Your task to perform on an android device: empty trash in the gmail app Image 0: 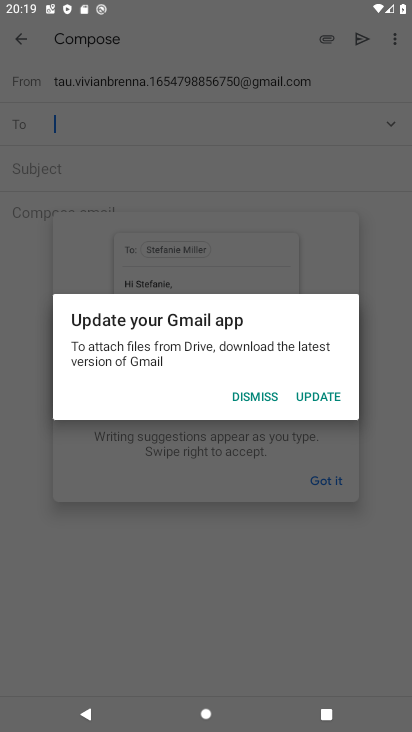
Step 0: click (315, 391)
Your task to perform on an android device: empty trash in the gmail app Image 1: 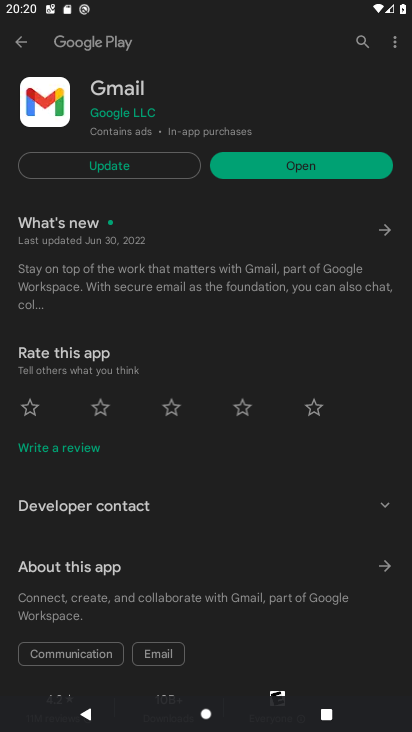
Step 1: click (117, 173)
Your task to perform on an android device: empty trash in the gmail app Image 2: 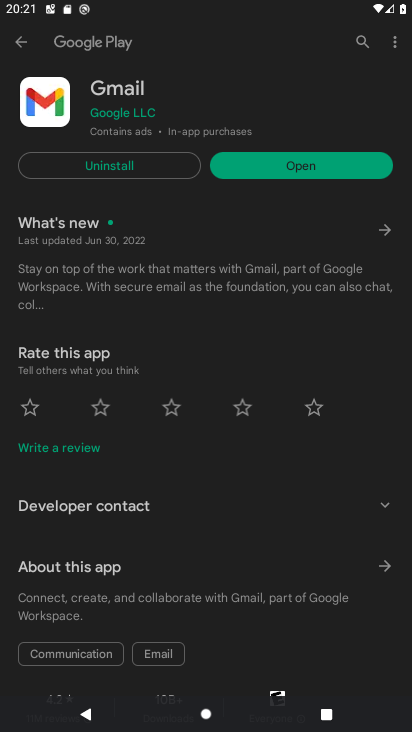
Step 2: click (253, 174)
Your task to perform on an android device: empty trash in the gmail app Image 3: 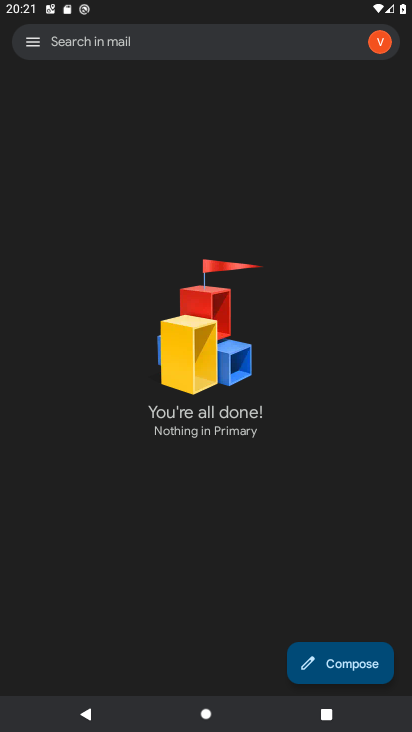
Step 3: click (33, 46)
Your task to perform on an android device: empty trash in the gmail app Image 4: 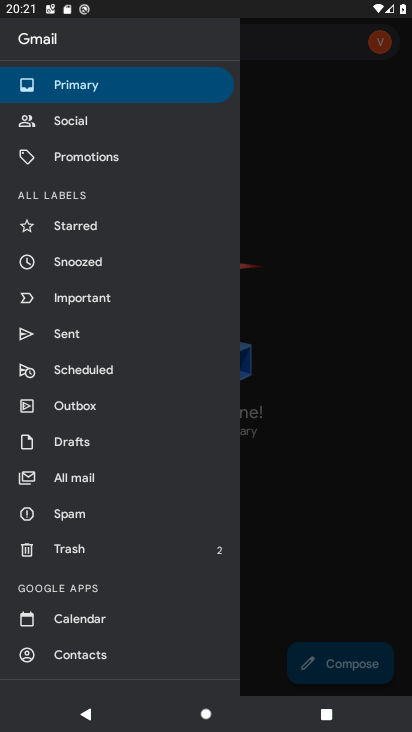
Step 4: click (73, 545)
Your task to perform on an android device: empty trash in the gmail app Image 5: 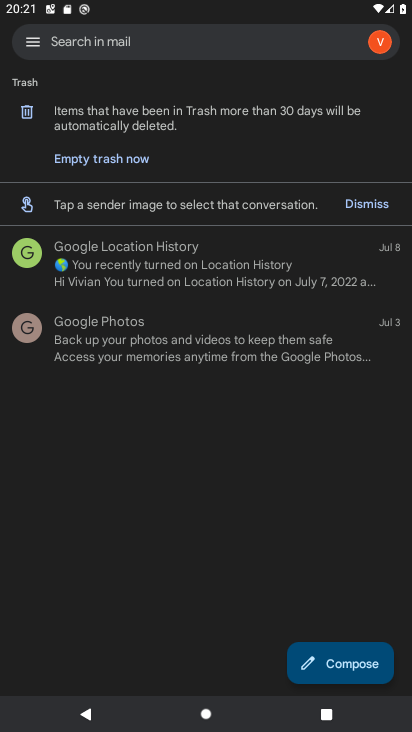
Step 5: click (20, 259)
Your task to perform on an android device: empty trash in the gmail app Image 6: 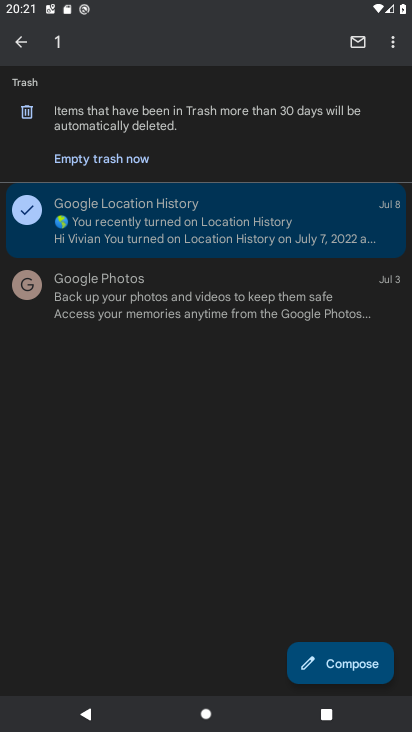
Step 6: click (20, 337)
Your task to perform on an android device: empty trash in the gmail app Image 7: 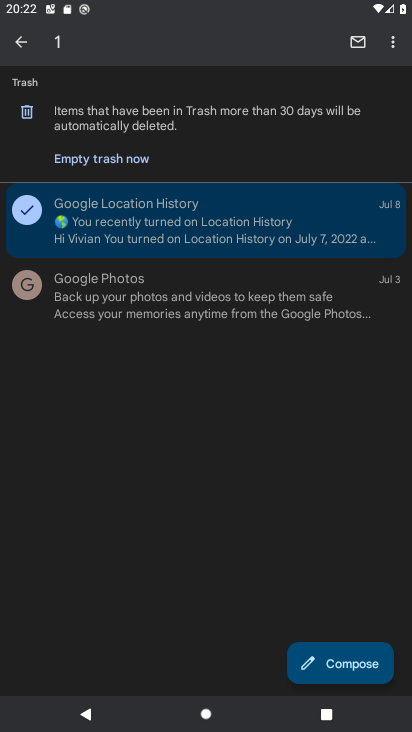
Step 7: click (34, 288)
Your task to perform on an android device: empty trash in the gmail app Image 8: 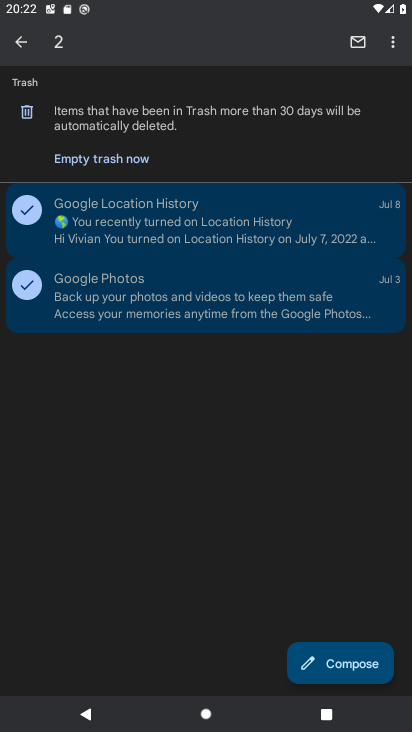
Step 8: click (29, 113)
Your task to perform on an android device: empty trash in the gmail app Image 9: 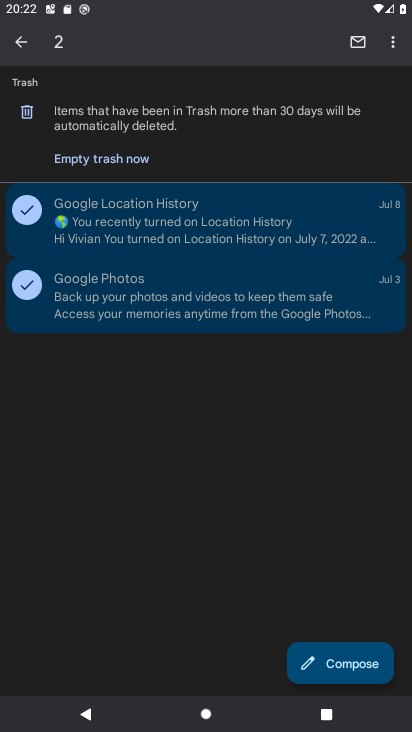
Step 9: task complete